Your task to perform on an android device: delete browsing data in the chrome app Image 0: 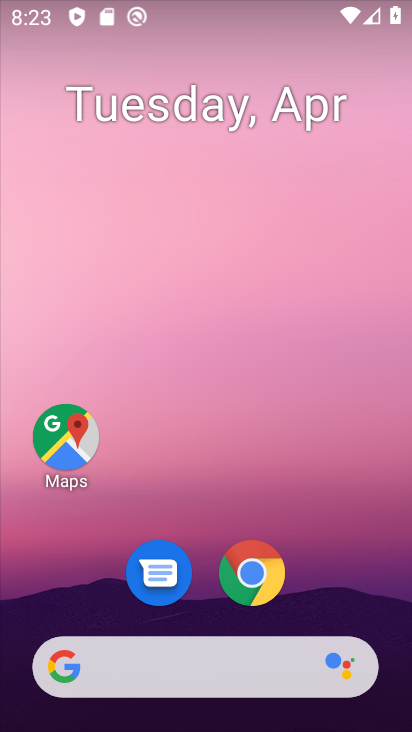
Step 0: click (245, 565)
Your task to perform on an android device: delete browsing data in the chrome app Image 1: 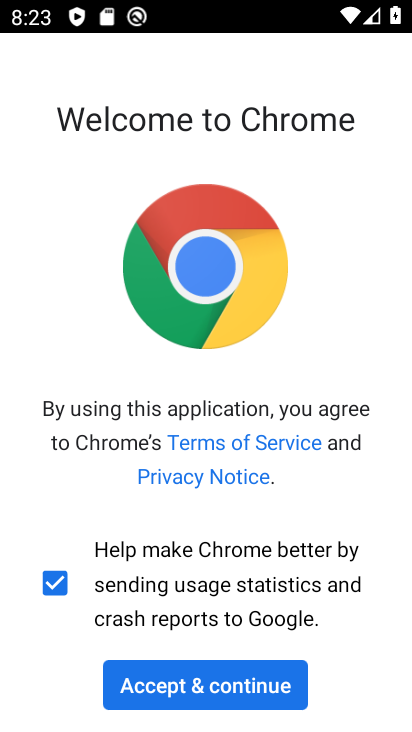
Step 1: click (218, 688)
Your task to perform on an android device: delete browsing data in the chrome app Image 2: 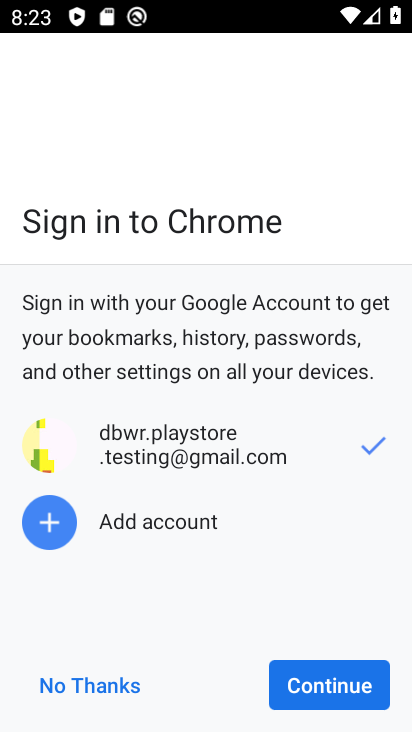
Step 2: click (299, 697)
Your task to perform on an android device: delete browsing data in the chrome app Image 3: 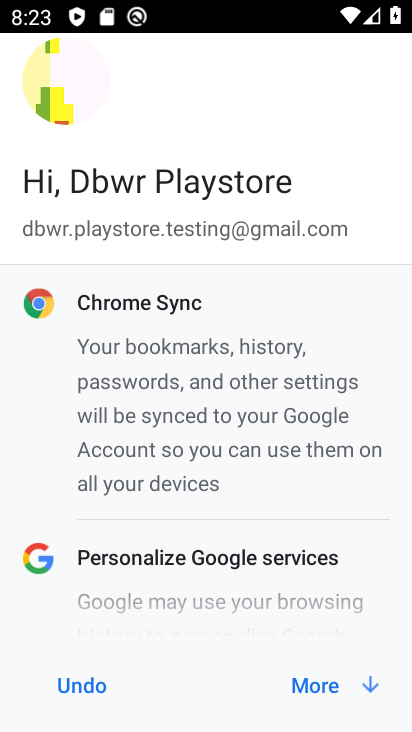
Step 3: click (299, 697)
Your task to perform on an android device: delete browsing data in the chrome app Image 4: 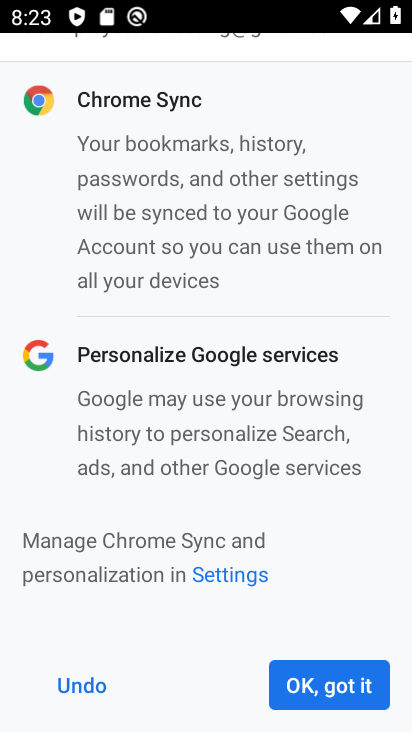
Step 4: click (299, 697)
Your task to perform on an android device: delete browsing data in the chrome app Image 5: 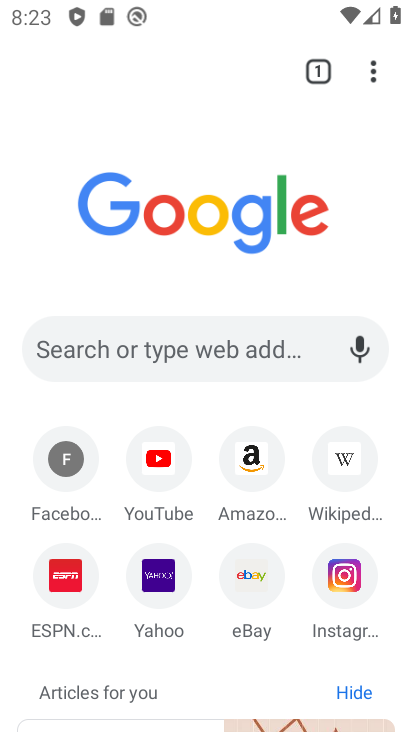
Step 5: click (372, 71)
Your task to perform on an android device: delete browsing data in the chrome app Image 6: 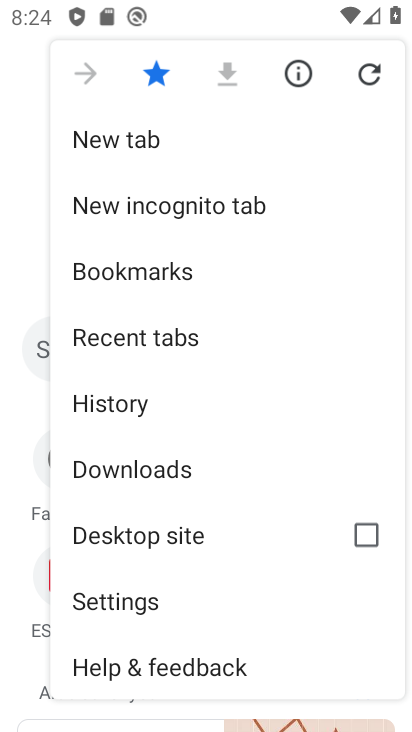
Step 6: click (119, 584)
Your task to perform on an android device: delete browsing data in the chrome app Image 7: 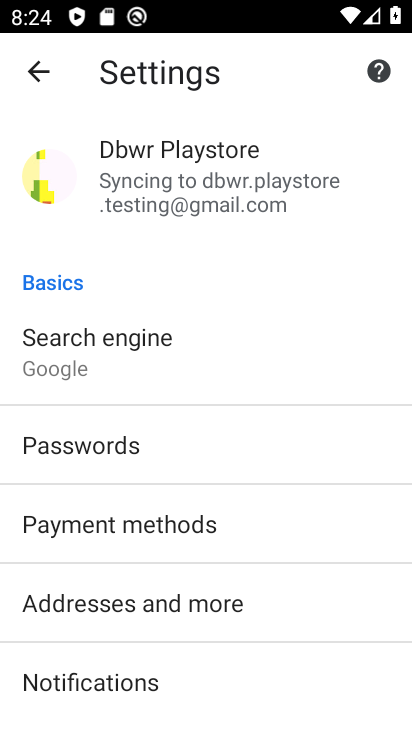
Step 7: drag from (136, 637) to (168, 177)
Your task to perform on an android device: delete browsing data in the chrome app Image 8: 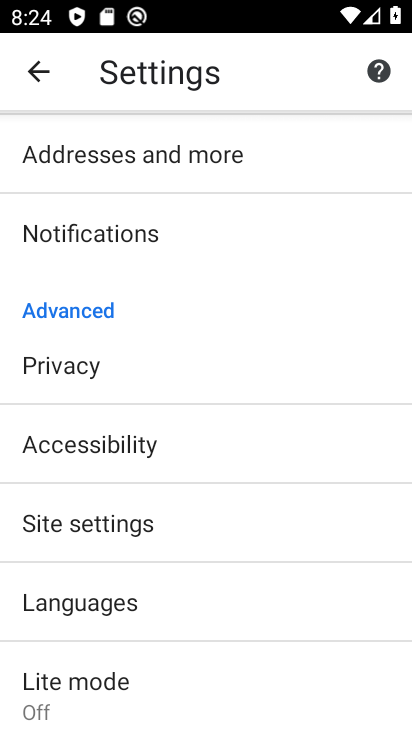
Step 8: click (51, 353)
Your task to perform on an android device: delete browsing data in the chrome app Image 9: 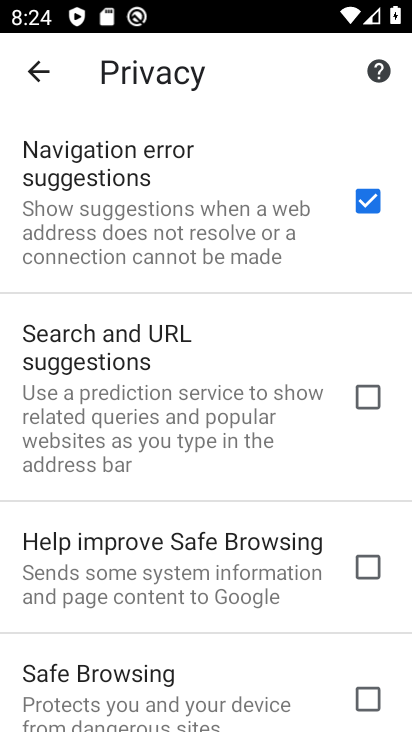
Step 9: drag from (171, 689) to (70, 6)
Your task to perform on an android device: delete browsing data in the chrome app Image 10: 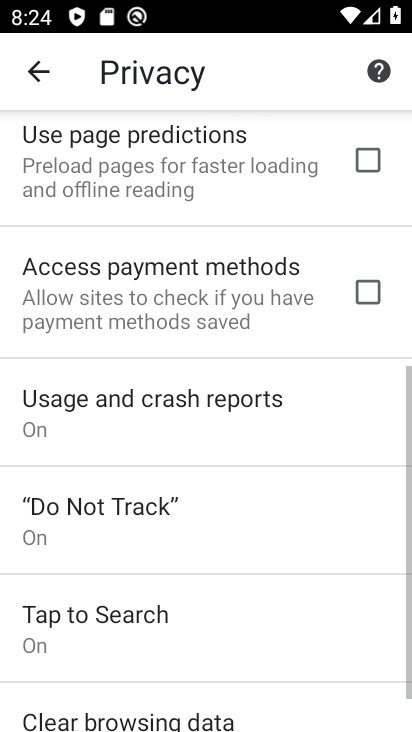
Step 10: drag from (152, 719) to (121, 171)
Your task to perform on an android device: delete browsing data in the chrome app Image 11: 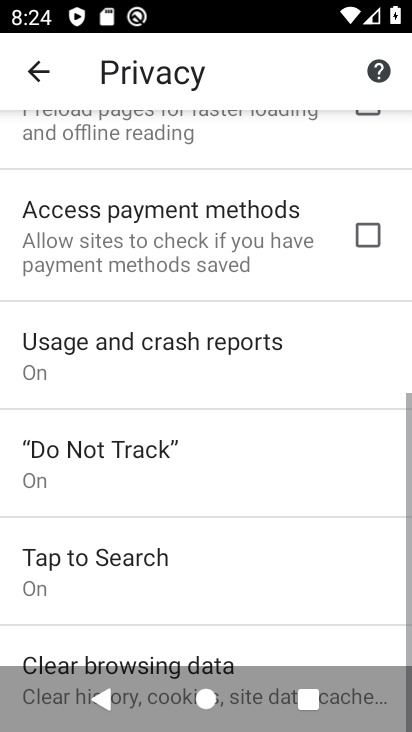
Step 11: click (126, 646)
Your task to perform on an android device: delete browsing data in the chrome app Image 12: 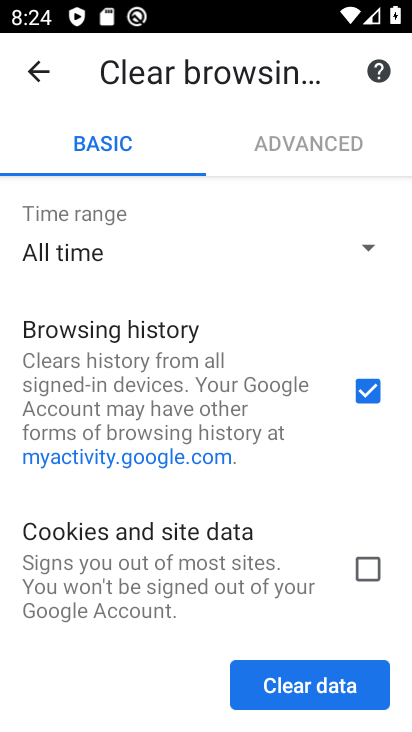
Step 12: drag from (217, 563) to (166, 195)
Your task to perform on an android device: delete browsing data in the chrome app Image 13: 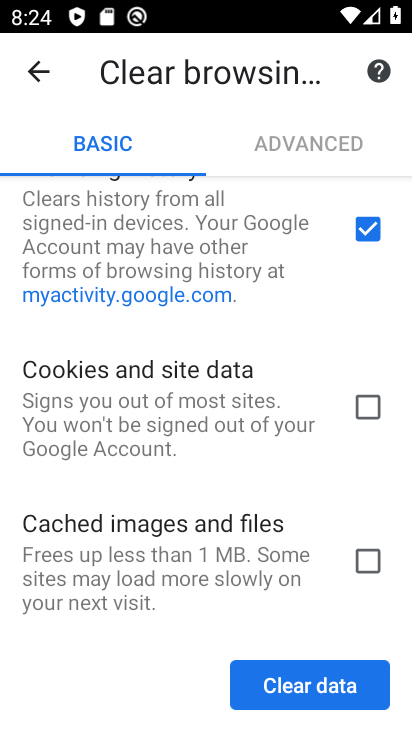
Step 13: click (305, 688)
Your task to perform on an android device: delete browsing data in the chrome app Image 14: 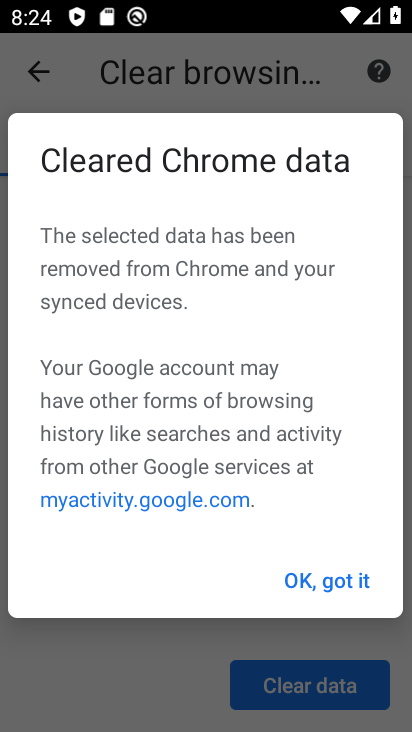
Step 14: click (343, 571)
Your task to perform on an android device: delete browsing data in the chrome app Image 15: 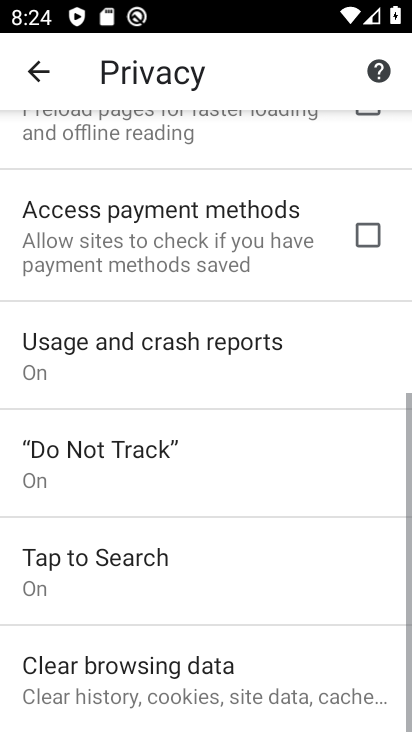
Step 15: task complete